Your task to perform on an android device: uninstall "Cash App" Image 0: 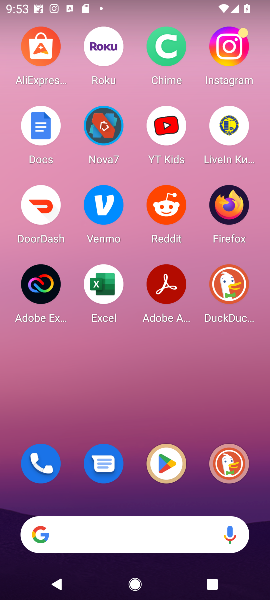
Step 0: click (163, 463)
Your task to perform on an android device: uninstall "Cash App" Image 1: 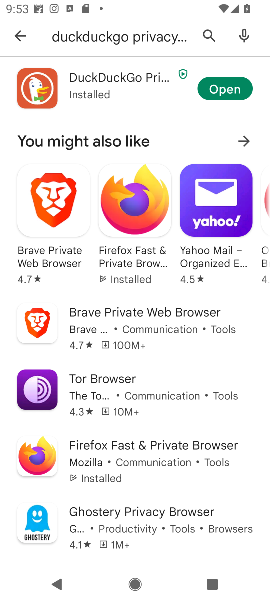
Step 1: click (17, 32)
Your task to perform on an android device: uninstall "Cash App" Image 2: 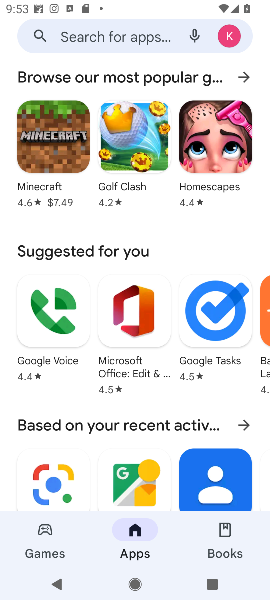
Step 2: click (94, 27)
Your task to perform on an android device: uninstall "Cash App" Image 3: 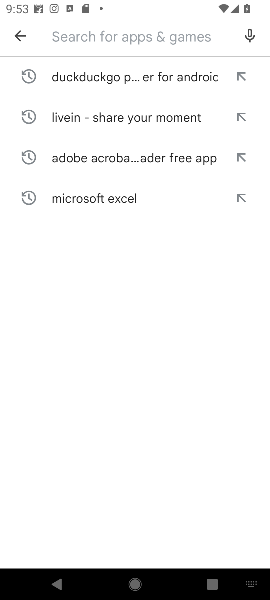
Step 3: type "Cash App"
Your task to perform on an android device: uninstall "Cash App" Image 4: 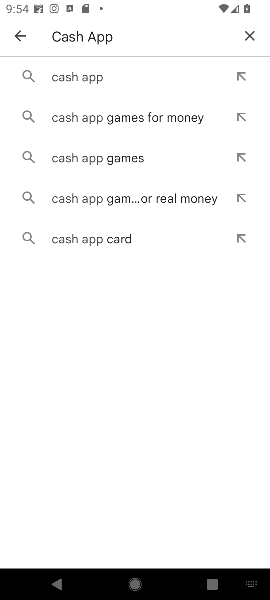
Step 4: click (70, 76)
Your task to perform on an android device: uninstall "Cash App" Image 5: 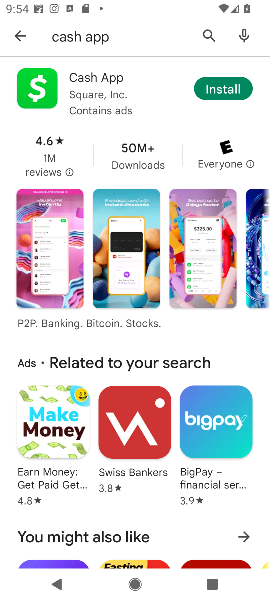
Step 5: task complete